Your task to perform on an android device: Open Maps and search for coffee Image 0: 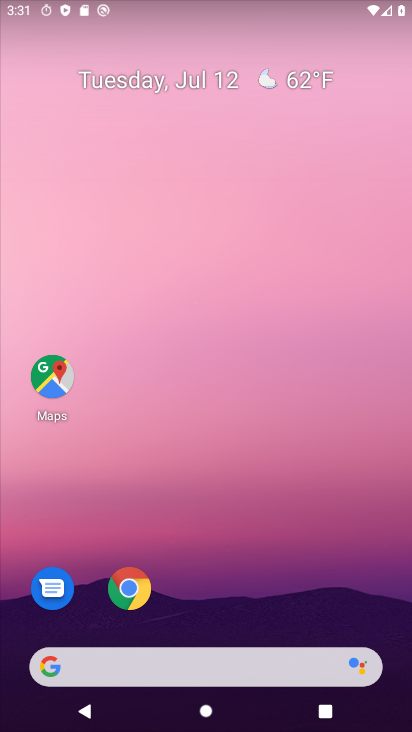
Step 0: click (63, 368)
Your task to perform on an android device: Open Maps and search for coffee Image 1: 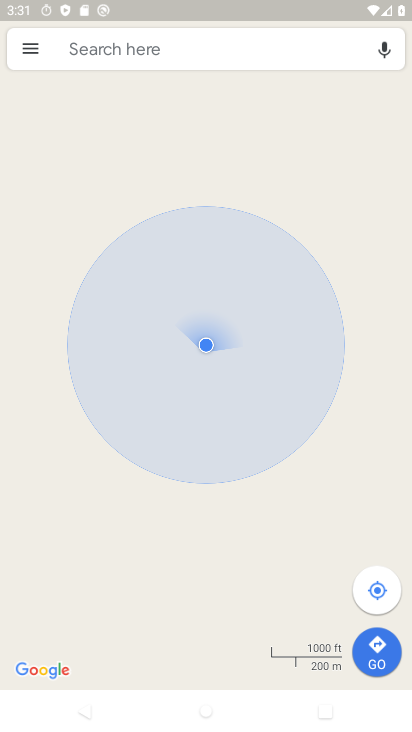
Step 1: click (181, 53)
Your task to perform on an android device: Open Maps and search for coffee Image 2: 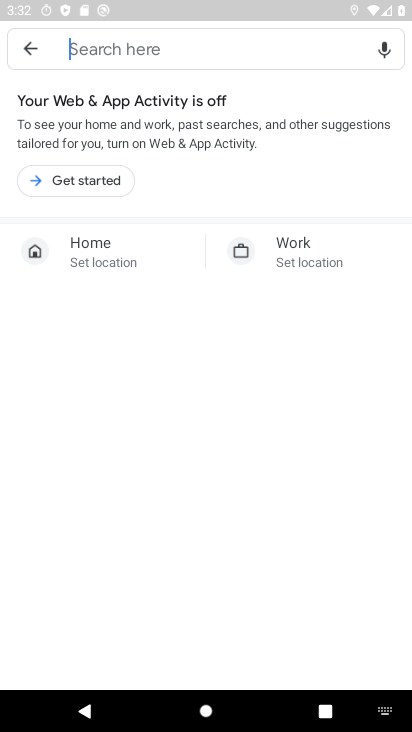
Step 2: type "coffee"
Your task to perform on an android device: Open Maps and search for coffee Image 3: 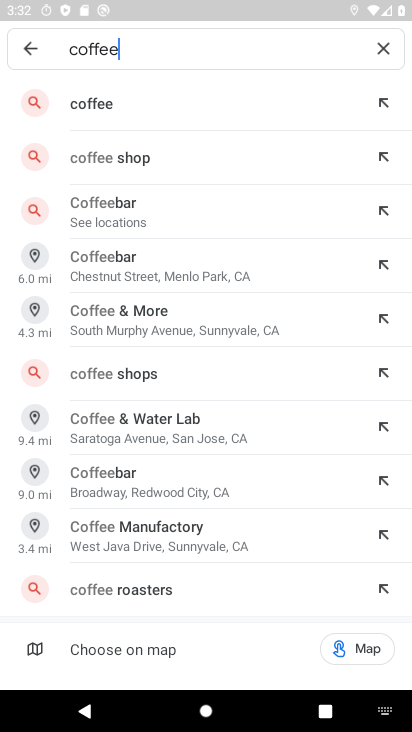
Step 3: click (159, 100)
Your task to perform on an android device: Open Maps and search for coffee Image 4: 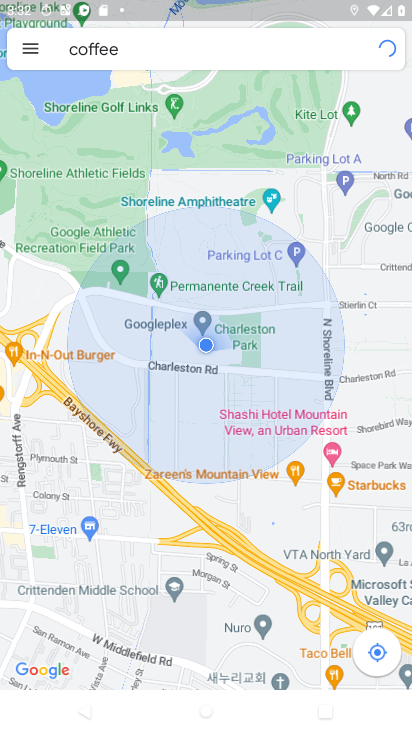
Step 4: task complete